Your task to perform on an android device: Search for pizza restaurants on Maps Image 0: 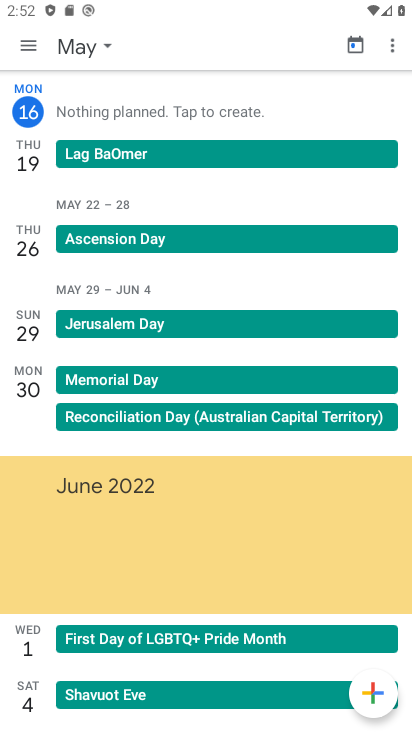
Step 0: press back button
Your task to perform on an android device: Search for pizza restaurants on Maps Image 1: 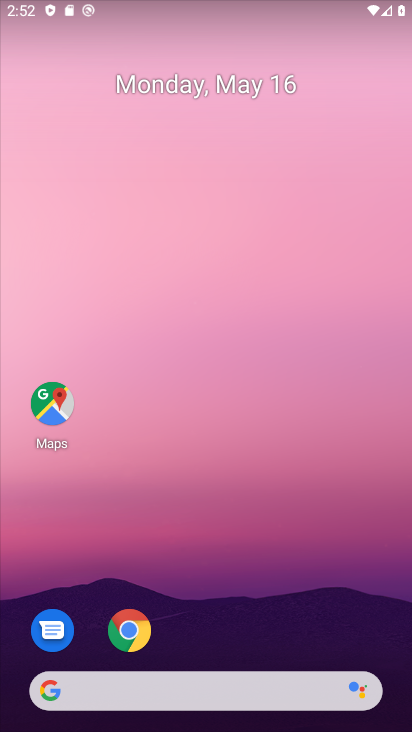
Step 1: drag from (295, 571) to (257, 0)
Your task to perform on an android device: Search for pizza restaurants on Maps Image 2: 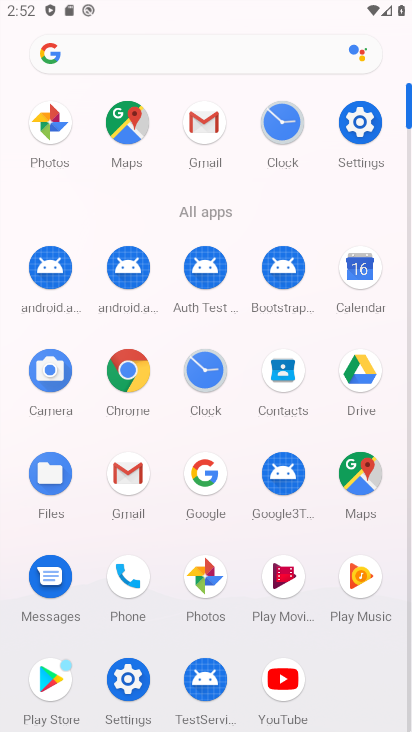
Step 2: click (123, 119)
Your task to perform on an android device: Search for pizza restaurants on Maps Image 3: 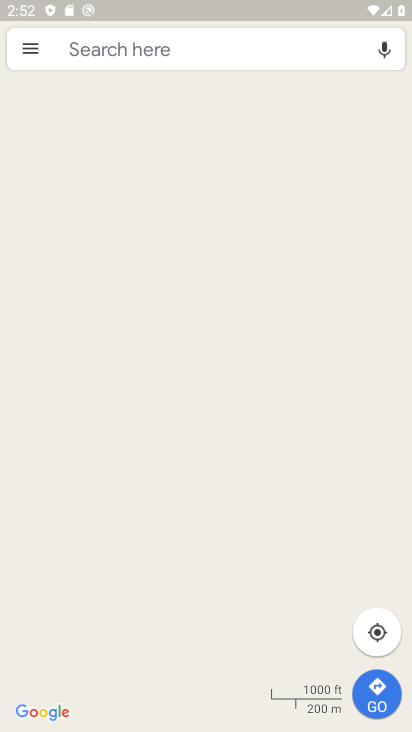
Step 3: click (238, 46)
Your task to perform on an android device: Search for pizza restaurants on Maps Image 4: 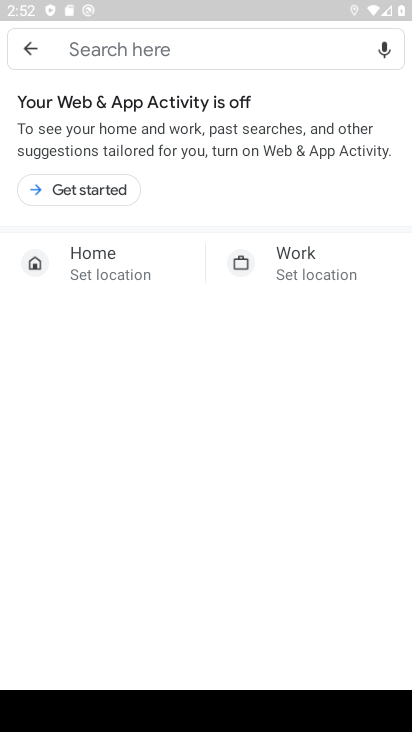
Step 4: type "pizza restaurants"
Your task to perform on an android device: Search for pizza restaurants on Maps Image 5: 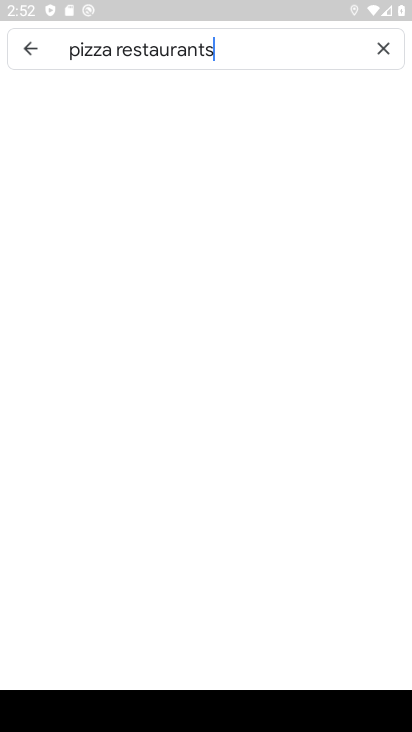
Step 5: type ""
Your task to perform on an android device: Search for pizza restaurants on Maps Image 6: 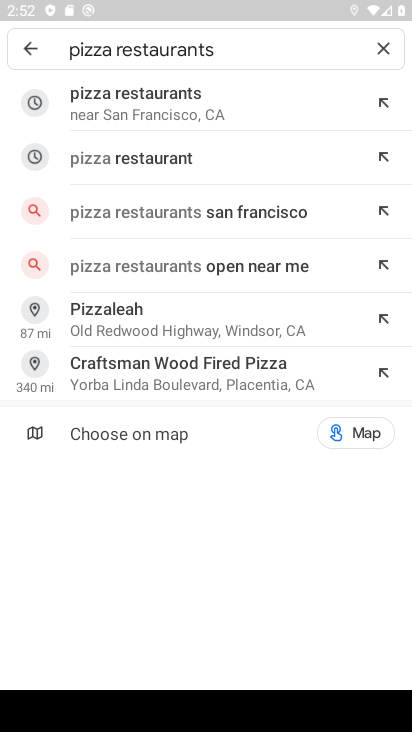
Step 6: click (196, 159)
Your task to perform on an android device: Search for pizza restaurants on Maps Image 7: 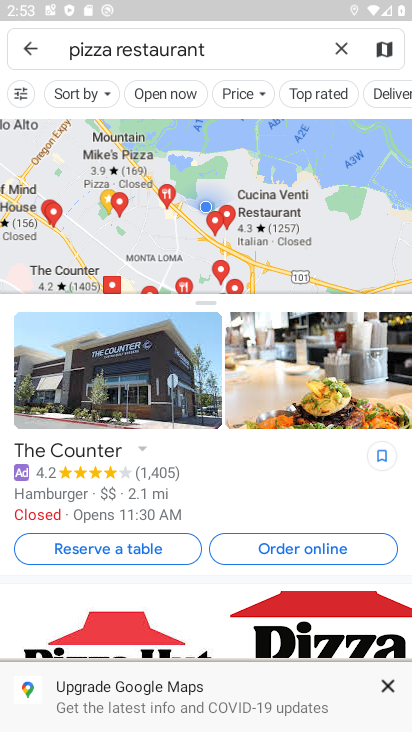
Step 7: task complete